Your task to perform on an android device: Do I have any events today? Image 0: 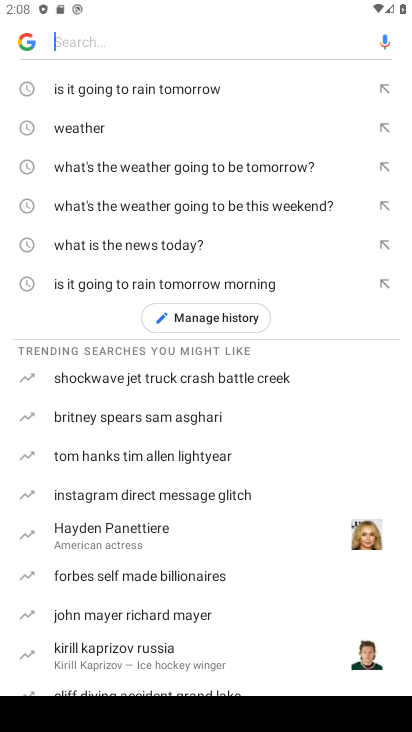
Step 0: press home button
Your task to perform on an android device: Do I have any events today? Image 1: 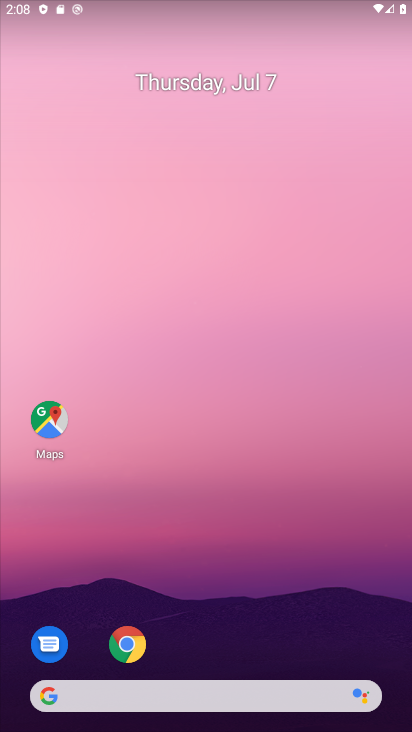
Step 1: drag from (298, 602) to (242, 147)
Your task to perform on an android device: Do I have any events today? Image 2: 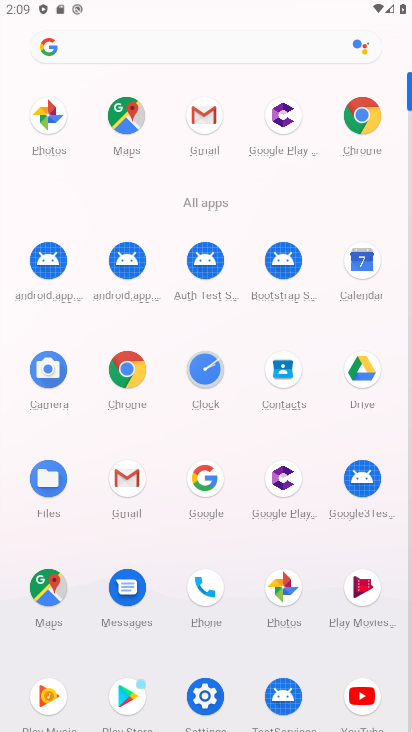
Step 2: click (366, 266)
Your task to perform on an android device: Do I have any events today? Image 3: 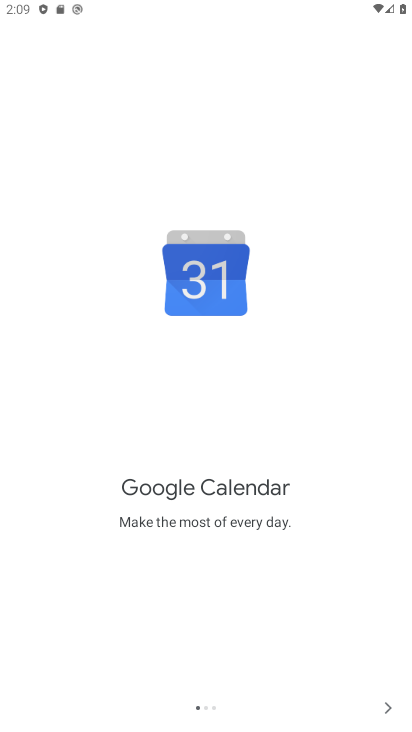
Step 3: click (384, 711)
Your task to perform on an android device: Do I have any events today? Image 4: 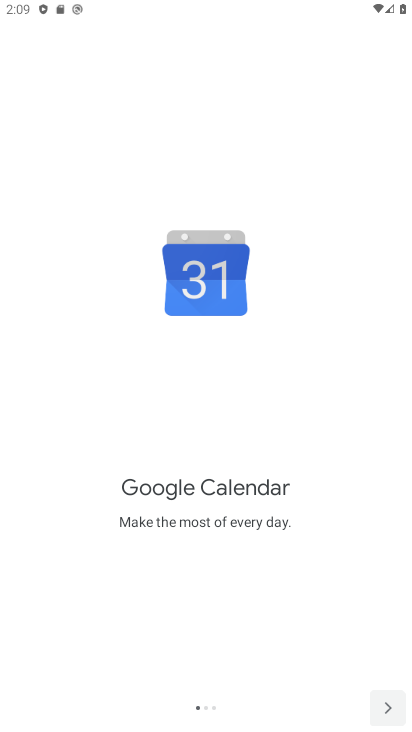
Step 4: click (384, 711)
Your task to perform on an android device: Do I have any events today? Image 5: 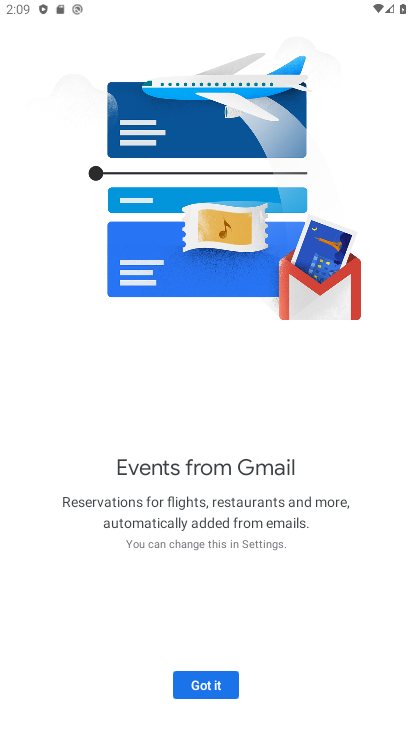
Step 5: click (384, 711)
Your task to perform on an android device: Do I have any events today? Image 6: 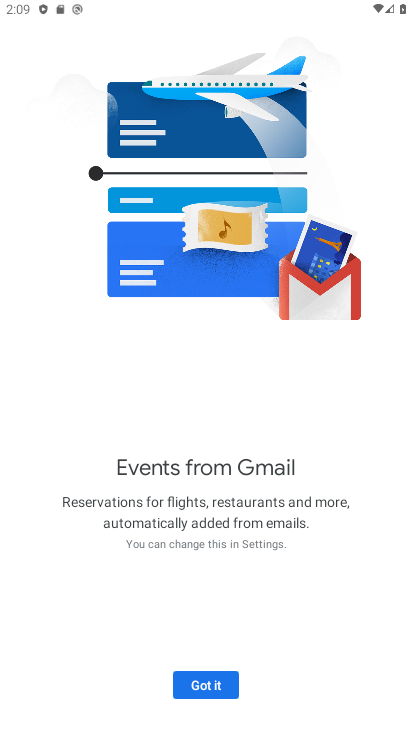
Step 6: click (194, 693)
Your task to perform on an android device: Do I have any events today? Image 7: 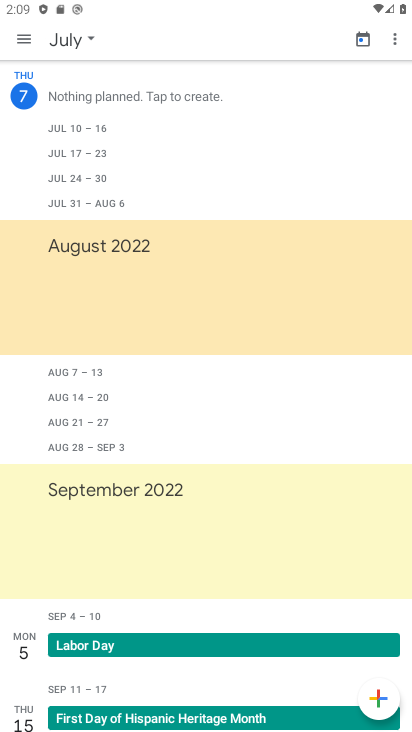
Step 7: click (24, 40)
Your task to perform on an android device: Do I have any events today? Image 8: 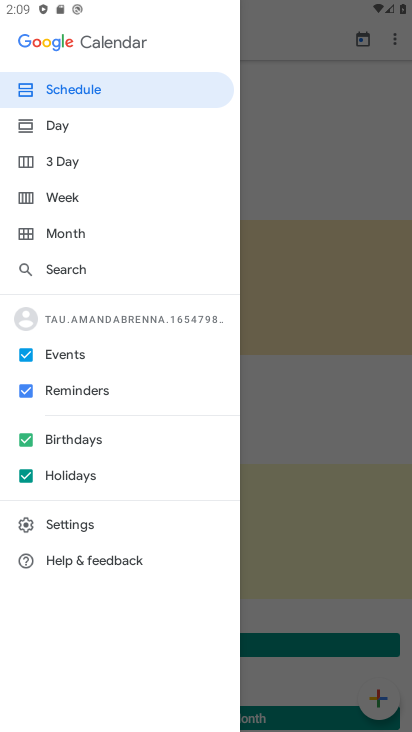
Step 8: click (76, 126)
Your task to perform on an android device: Do I have any events today? Image 9: 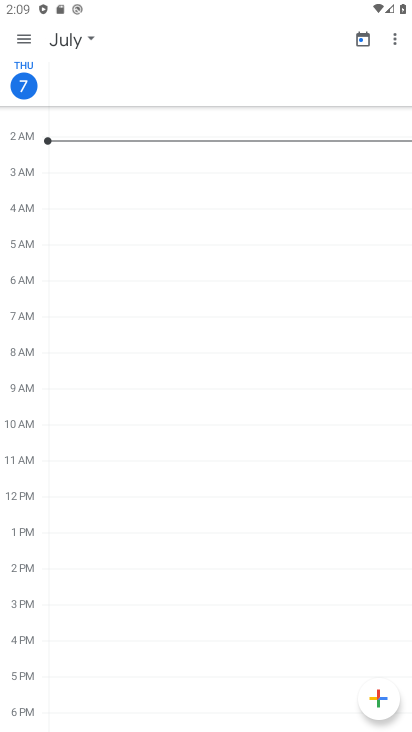
Step 9: click (20, 35)
Your task to perform on an android device: Do I have any events today? Image 10: 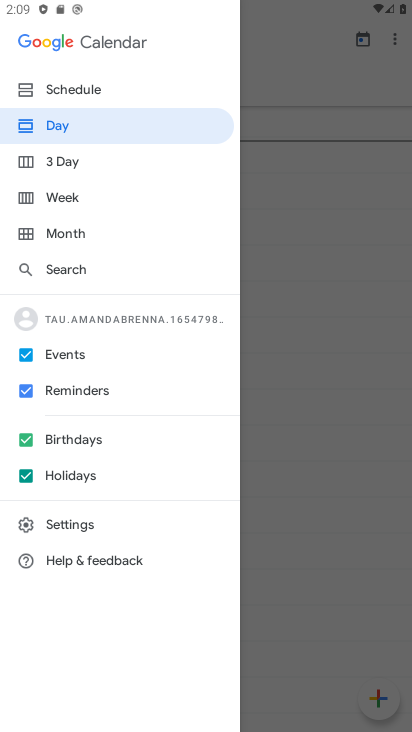
Step 10: click (25, 475)
Your task to perform on an android device: Do I have any events today? Image 11: 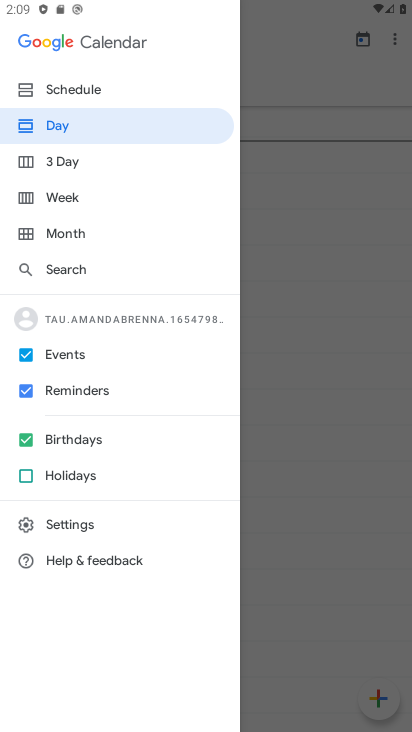
Step 11: click (23, 440)
Your task to perform on an android device: Do I have any events today? Image 12: 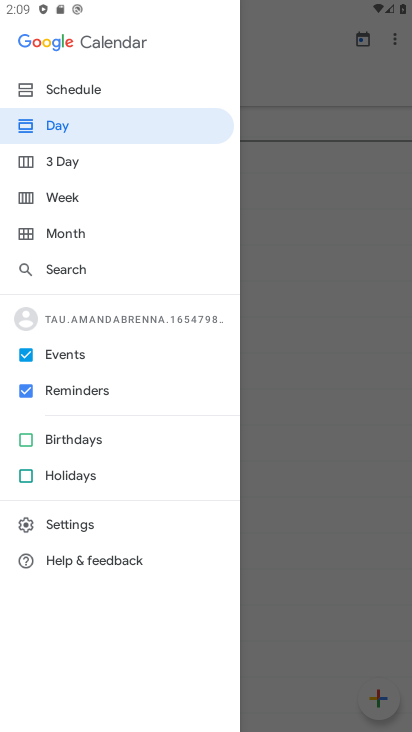
Step 12: click (25, 390)
Your task to perform on an android device: Do I have any events today? Image 13: 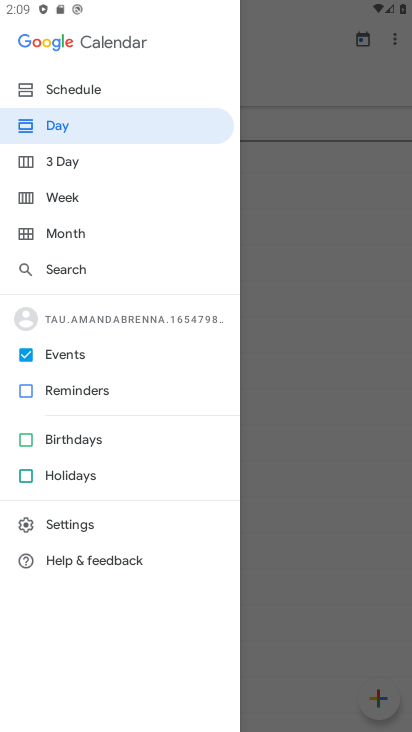
Step 13: click (133, 121)
Your task to perform on an android device: Do I have any events today? Image 14: 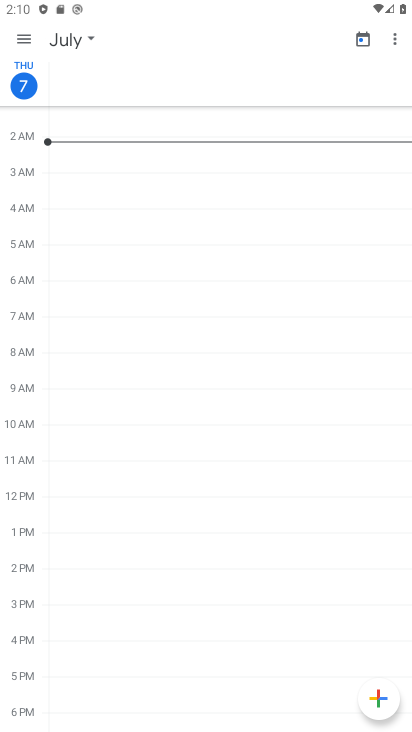
Step 14: task complete